Your task to perform on an android device: Open the phone app and click the voicemail tab. Image 0: 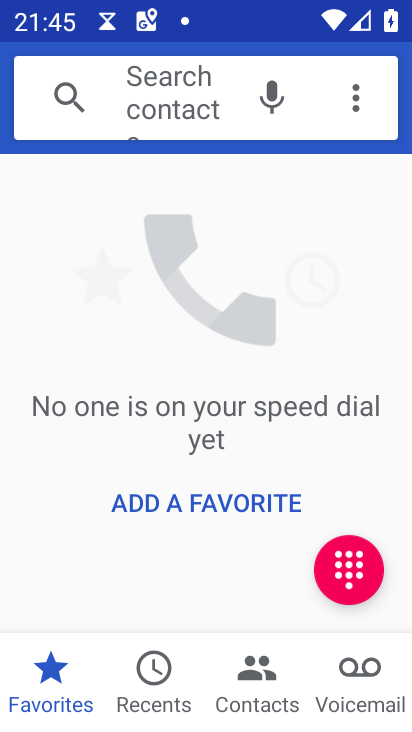
Step 0: press home button
Your task to perform on an android device: Open the phone app and click the voicemail tab. Image 1: 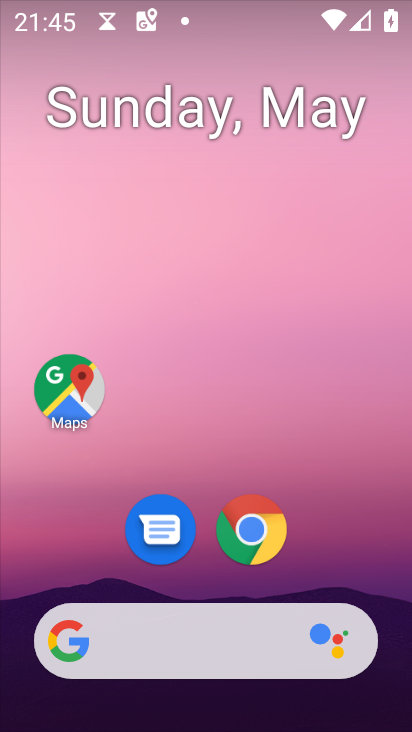
Step 1: drag from (194, 572) to (254, 2)
Your task to perform on an android device: Open the phone app and click the voicemail tab. Image 2: 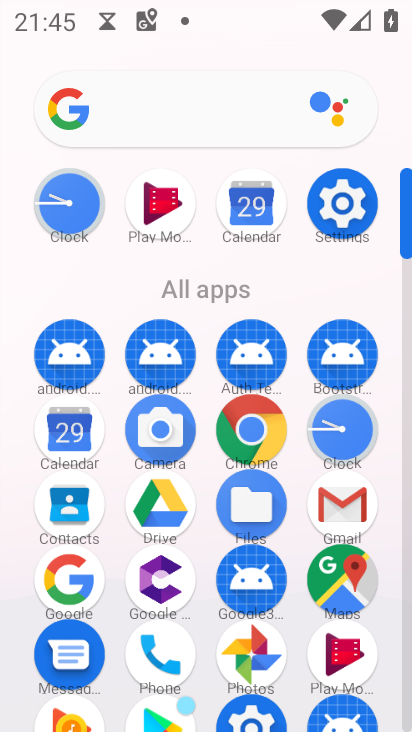
Step 2: click (169, 651)
Your task to perform on an android device: Open the phone app and click the voicemail tab. Image 3: 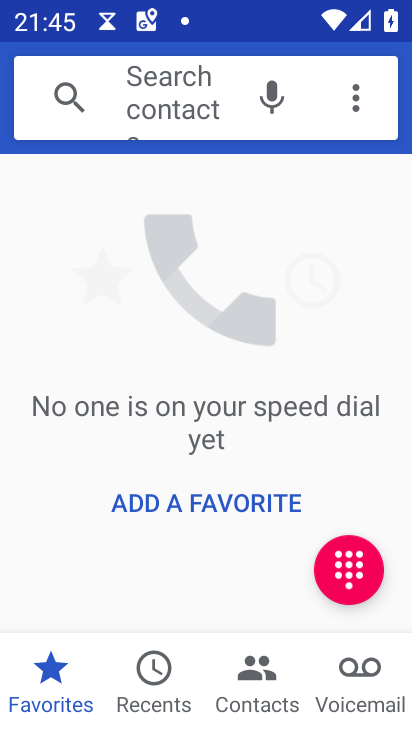
Step 3: click (352, 673)
Your task to perform on an android device: Open the phone app and click the voicemail tab. Image 4: 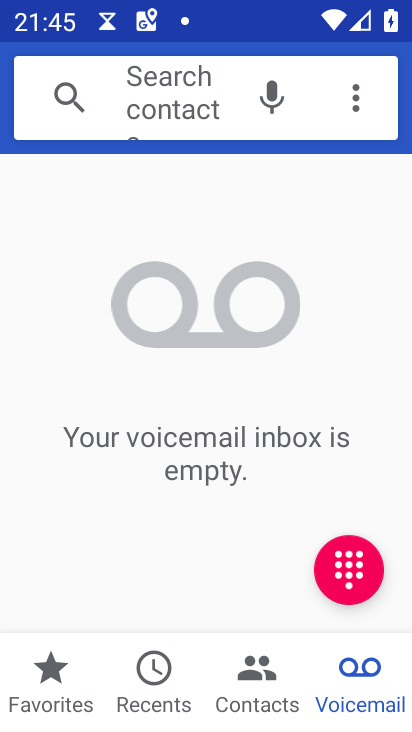
Step 4: task complete